Your task to perform on an android device: Clear all items from cart on ebay. Add "bose soundlink mini" to the cart on ebay, then select checkout. Image 0: 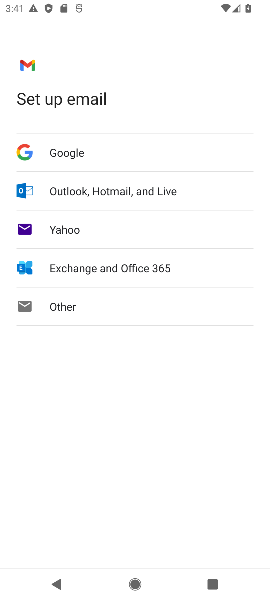
Step 0: press home button
Your task to perform on an android device: Clear all items from cart on ebay. Add "bose soundlink mini" to the cart on ebay, then select checkout. Image 1: 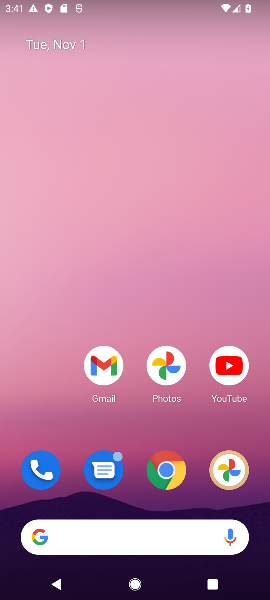
Step 1: click (167, 473)
Your task to perform on an android device: Clear all items from cart on ebay. Add "bose soundlink mini" to the cart on ebay, then select checkout. Image 2: 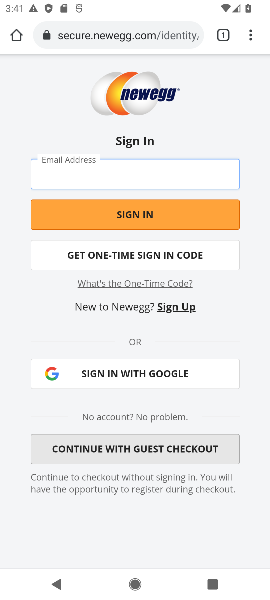
Step 2: click (105, 34)
Your task to perform on an android device: Clear all items from cart on ebay. Add "bose soundlink mini" to the cart on ebay, then select checkout. Image 3: 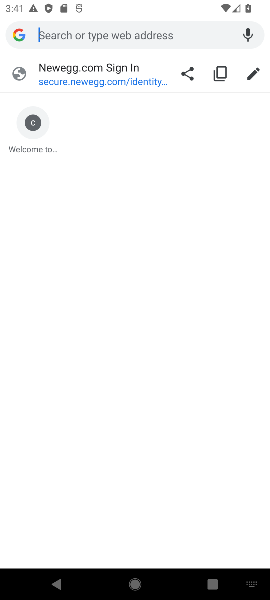
Step 3: type "ebay"
Your task to perform on an android device: Clear all items from cart on ebay. Add "bose soundlink mini" to the cart on ebay, then select checkout. Image 4: 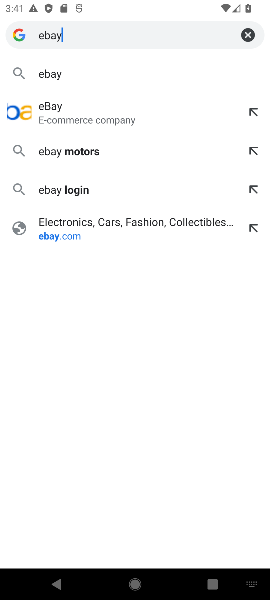
Step 4: click (63, 75)
Your task to perform on an android device: Clear all items from cart on ebay. Add "bose soundlink mini" to the cart on ebay, then select checkout. Image 5: 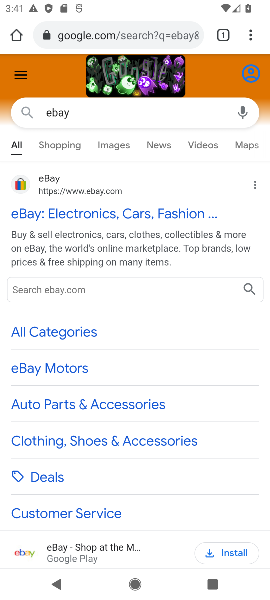
Step 5: click (86, 215)
Your task to perform on an android device: Clear all items from cart on ebay. Add "bose soundlink mini" to the cart on ebay, then select checkout. Image 6: 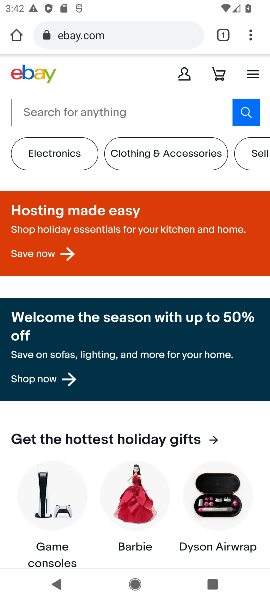
Step 6: click (217, 76)
Your task to perform on an android device: Clear all items from cart on ebay. Add "bose soundlink mini" to the cart on ebay, then select checkout. Image 7: 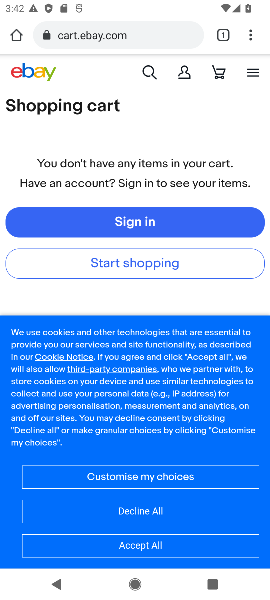
Step 7: click (147, 69)
Your task to perform on an android device: Clear all items from cart on ebay. Add "bose soundlink mini" to the cart on ebay, then select checkout. Image 8: 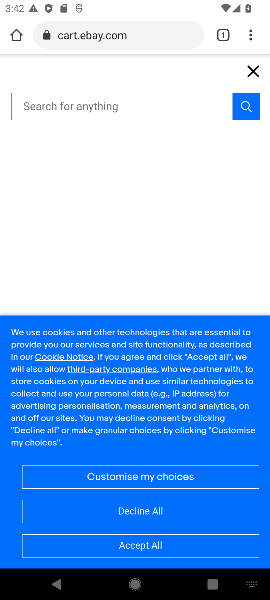
Step 8: type "bose soundlink mini"
Your task to perform on an android device: Clear all items from cart on ebay. Add "bose soundlink mini" to the cart on ebay, then select checkout. Image 9: 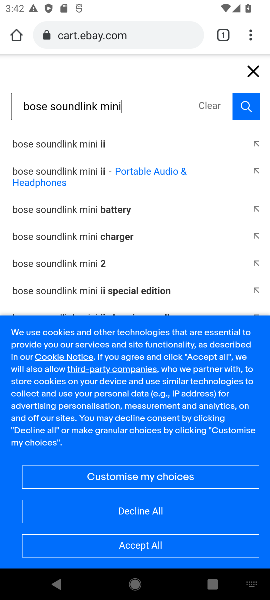
Step 9: press enter
Your task to perform on an android device: Clear all items from cart on ebay. Add "bose soundlink mini" to the cart on ebay, then select checkout. Image 10: 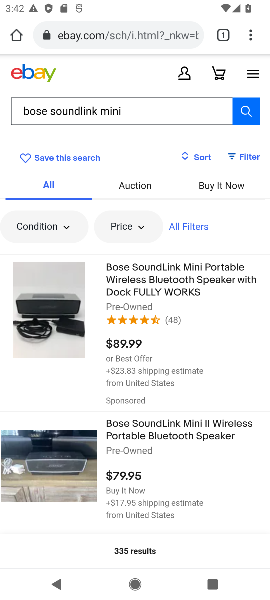
Step 10: click (126, 283)
Your task to perform on an android device: Clear all items from cart on ebay. Add "bose soundlink mini" to the cart on ebay, then select checkout. Image 11: 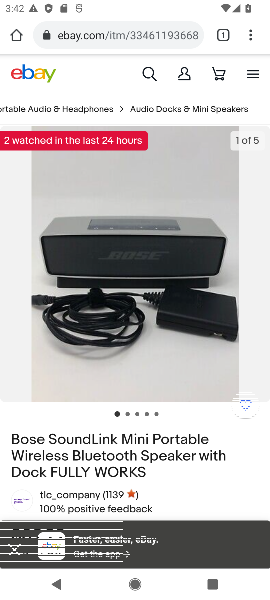
Step 11: drag from (205, 489) to (159, 263)
Your task to perform on an android device: Clear all items from cart on ebay. Add "bose soundlink mini" to the cart on ebay, then select checkout. Image 12: 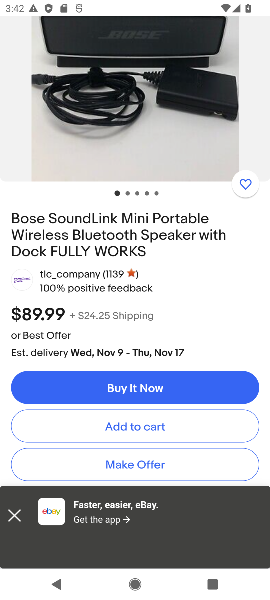
Step 12: click (153, 429)
Your task to perform on an android device: Clear all items from cart on ebay. Add "bose soundlink mini" to the cart on ebay, then select checkout. Image 13: 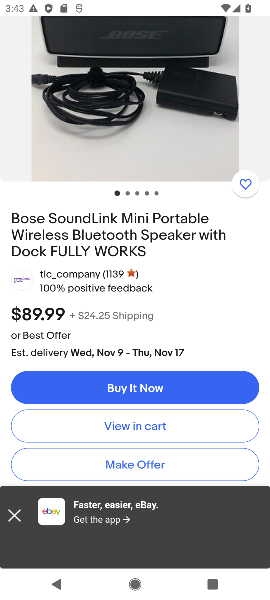
Step 13: click (134, 422)
Your task to perform on an android device: Clear all items from cart on ebay. Add "bose soundlink mini" to the cart on ebay, then select checkout. Image 14: 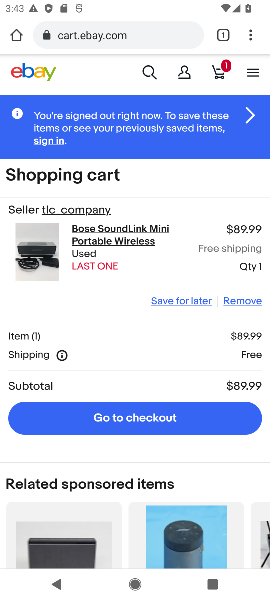
Step 14: click (142, 415)
Your task to perform on an android device: Clear all items from cart on ebay. Add "bose soundlink mini" to the cart on ebay, then select checkout. Image 15: 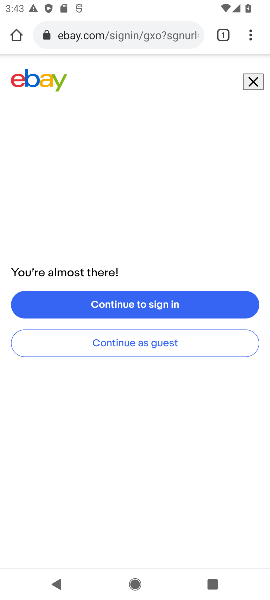
Step 15: task complete